Your task to perform on an android device: Go to settings Image 0: 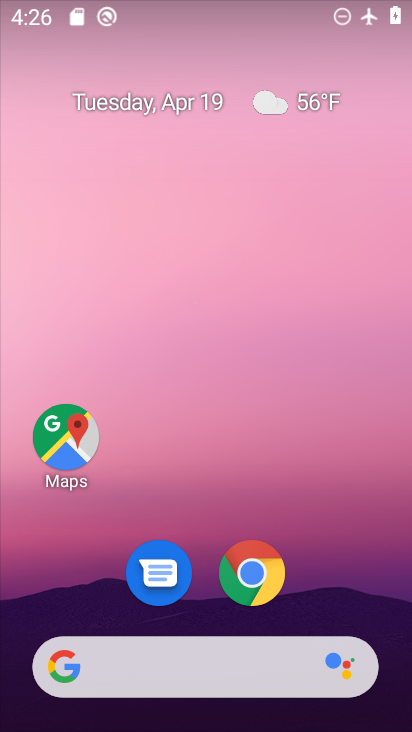
Step 0: drag from (356, 619) to (320, 0)
Your task to perform on an android device: Go to settings Image 1: 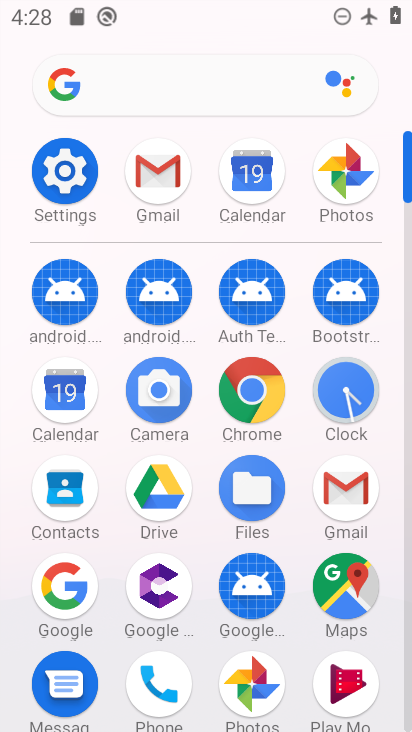
Step 1: click (60, 170)
Your task to perform on an android device: Go to settings Image 2: 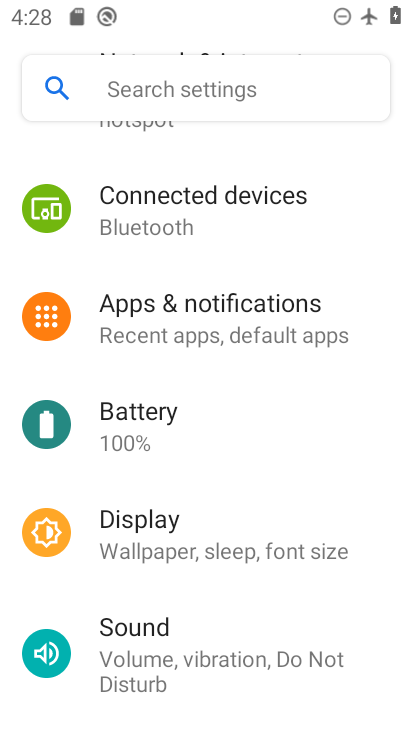
Step 2: task complete